Your task to perform on an android device: Open my contact list Image 0: 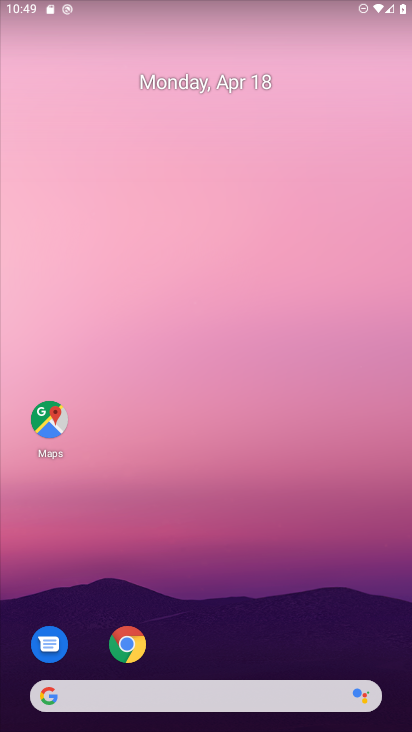
Step 0: drag from (192, 402) to (275, 20)
Your task to perform on an android device: Open my contact list Image 1: 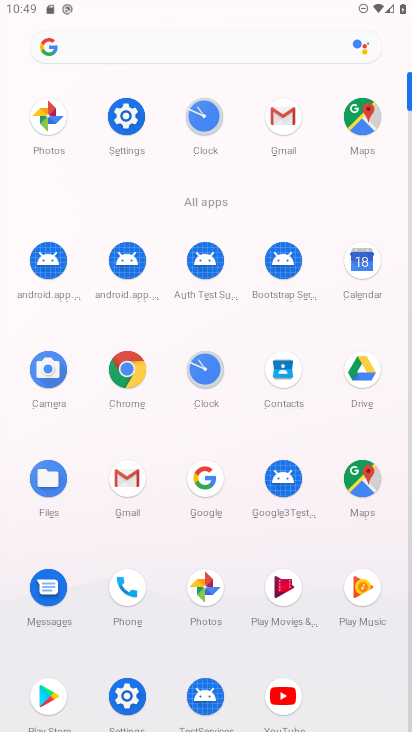
Step 1: click (294, 366)
Your task to perform on an android device: Open my contact list Image 2: 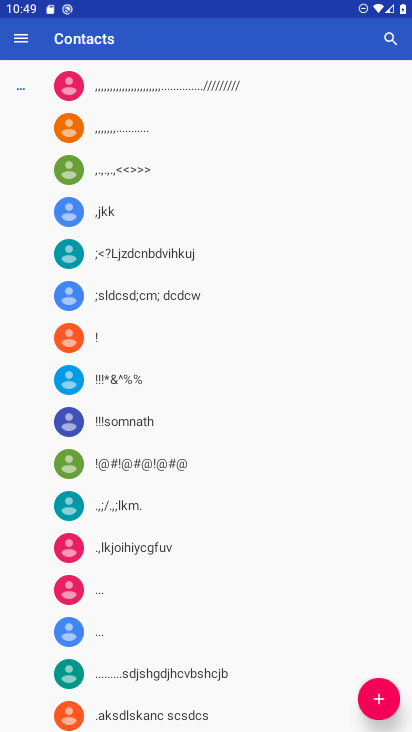
Step 2: task complete